Your task to perform on an android device: turn off wifi Image 0: 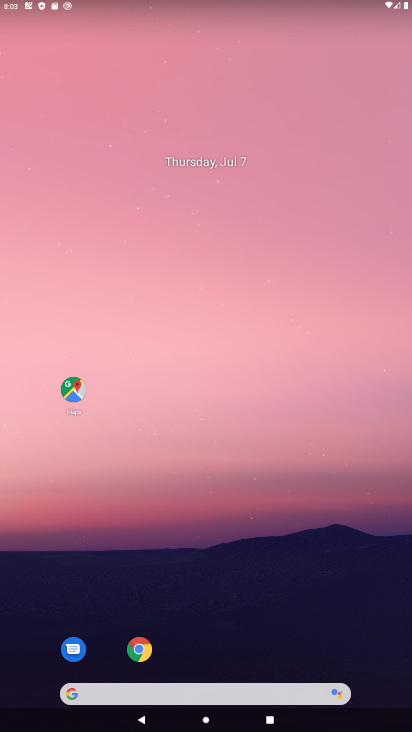
Step 0: drag from (246, 710) to (174, 268)
Your task to perform on an android device: turn off wifi Image 1: 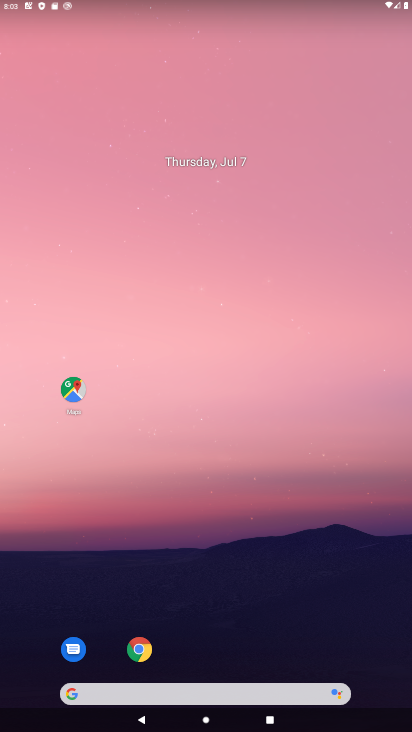
Step 1: drag from (251, 661) to (195, 259)
Your task to perform on an android device: turn off wifi Image 2: 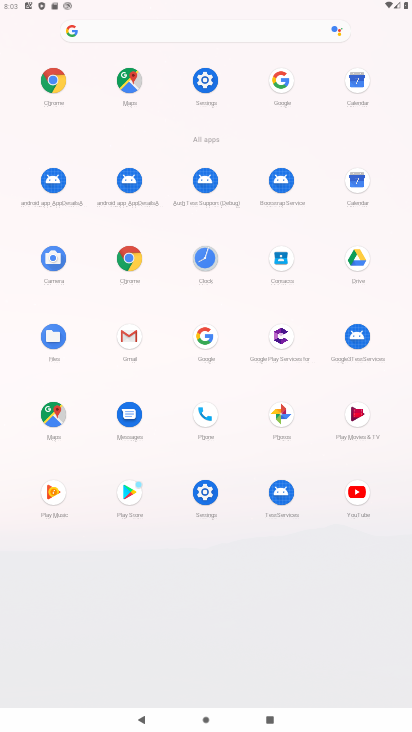
Step 2: click (202, 91)
Your task to perform on an android device: turn off wifi Image 3: 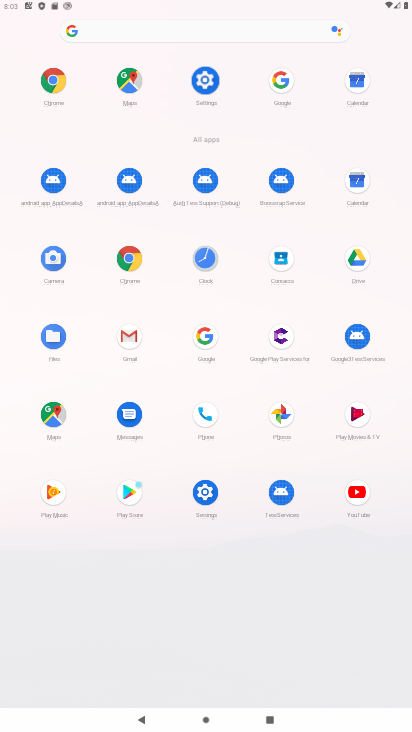
Step 3: click (203, 94)
Your task to perform on an android device: turn off wifi Image 4: 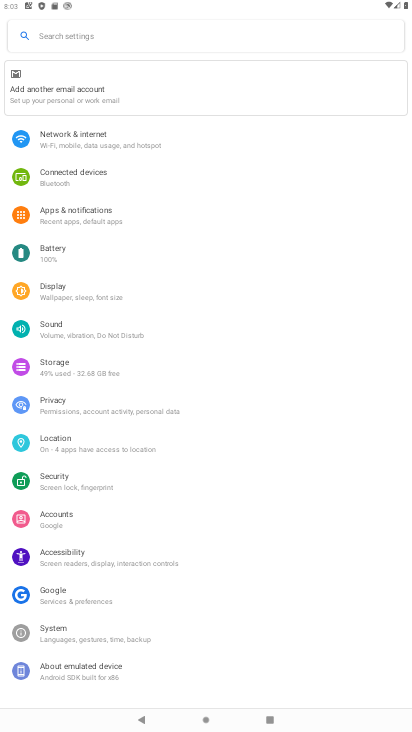
Step 4: click (80, 145)
Your task to perform on an android device: turn off wifi Image 5: 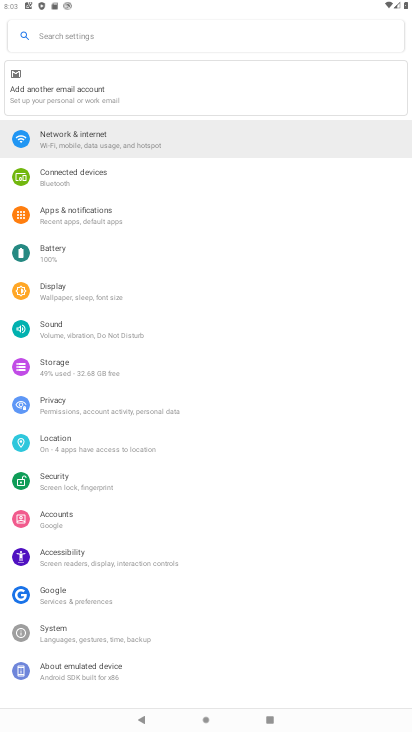
Step 5: click (80, 145)
Your task to perform on an android device: turn off wifi Image 6: 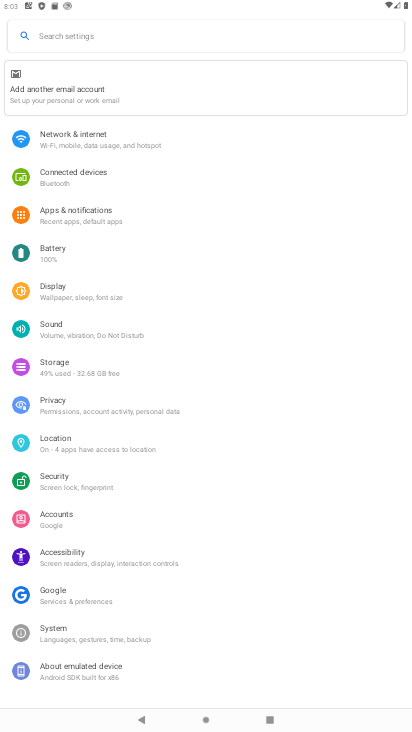
Step 6: click (80, 144)
Your task to perform on an android device: turn off wifi Image 7: 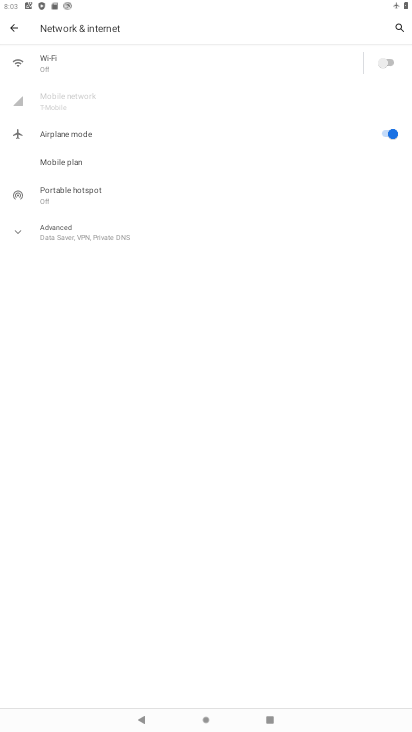
Step 7: task complete